Your task to perform on an android device: make emails show in primary in the gmail app Image 0: 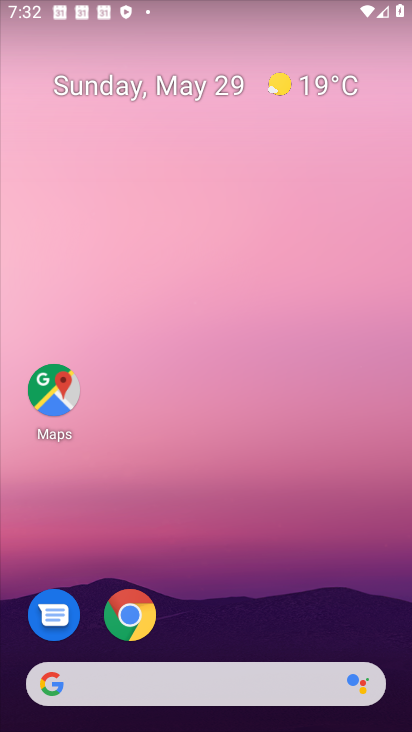
Step 0: drag from (163, 725) to (225, 54)
Your task to perform on an android device: make emails show in primary in the gmail app Image 1: 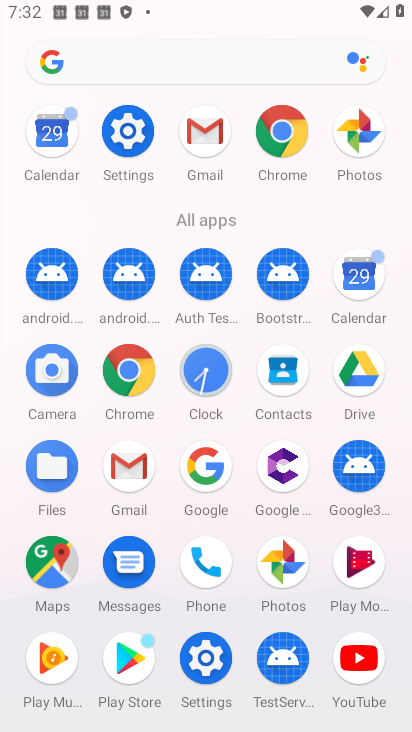
Step 1: click (209, 145)
Your task to perform on an android device: make emails show in primary in the gmail app Image 2: 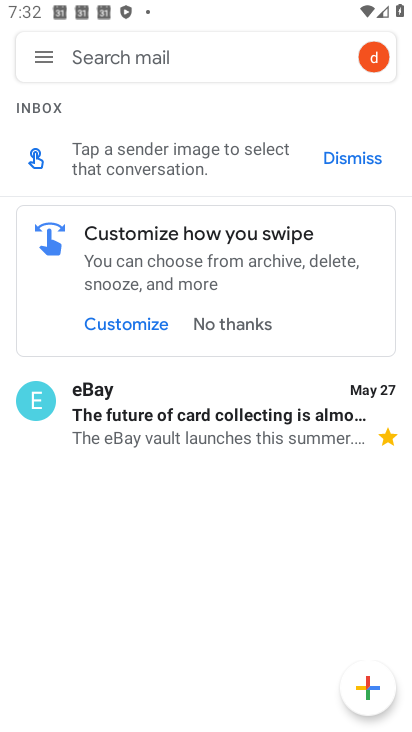
Step 2: click (51, 45)
Your task to perform on an android device: make emails show in primary in the gmail app Image 3: 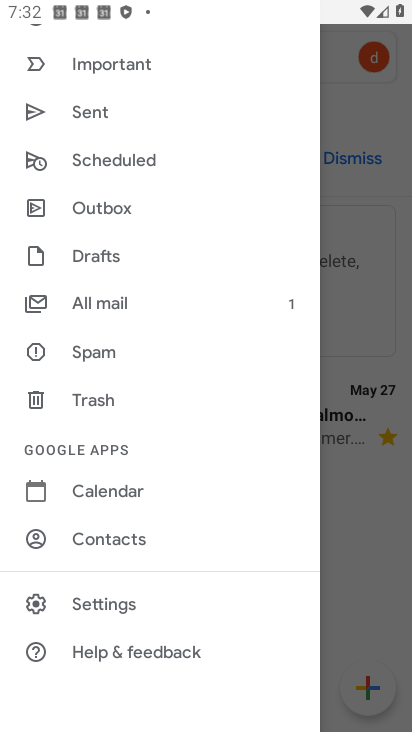
Step 3: click (113, 613)
Your task to perform on an android device: make emails show in primary in the gmail app Image 4: 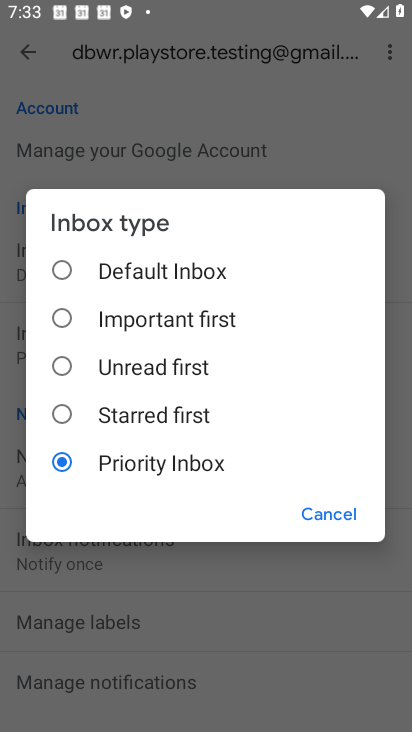
Step 4: click (332, 522)
Your task to perform on an android device: make emails show in primary in the gmail app Image 5: 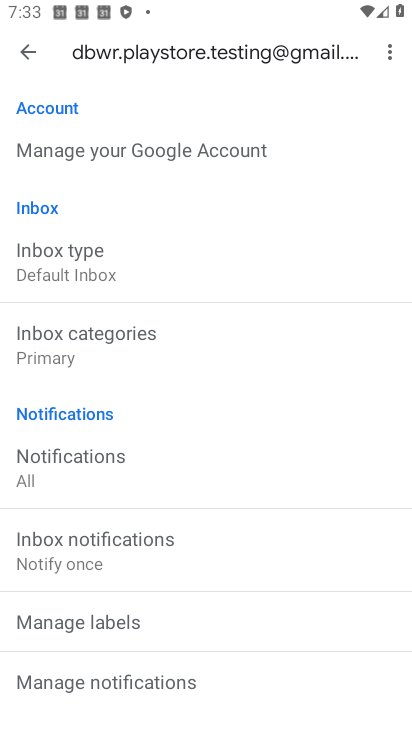
Step 5: click (120, 357)
Your task to perform on an android device: make emails show in primary in the gmail app Image 6: 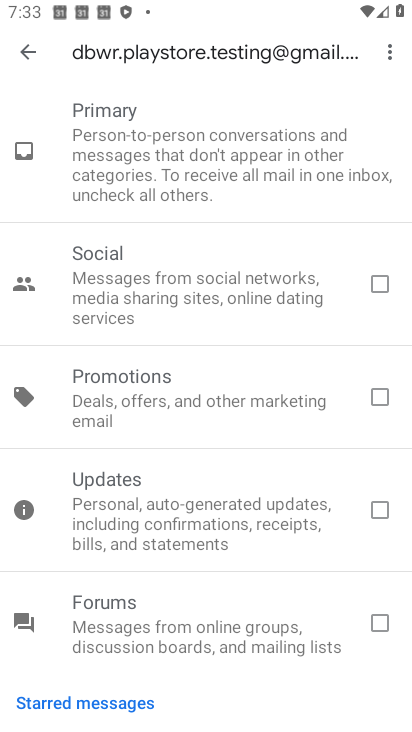
Step 6: drag from (320, 697) to (334, 152)
Your task to perform on an android device: make emails show in primary in the gmail app Image 7: 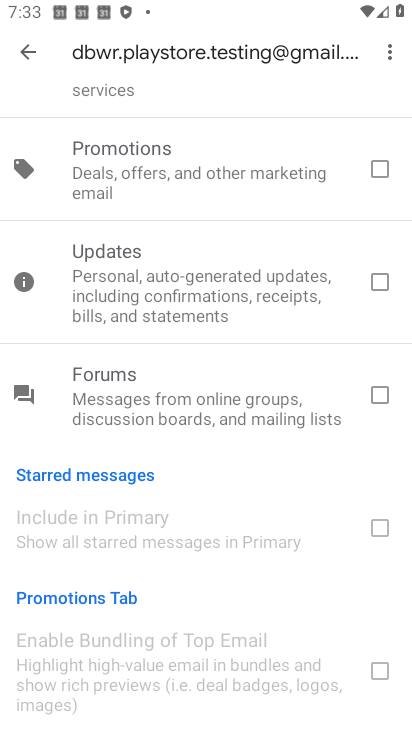
Step 7: drag from (264, 682) to (266, 242)
Your task to perform on an android device: make emails show in primary in the gmail app Image 8: 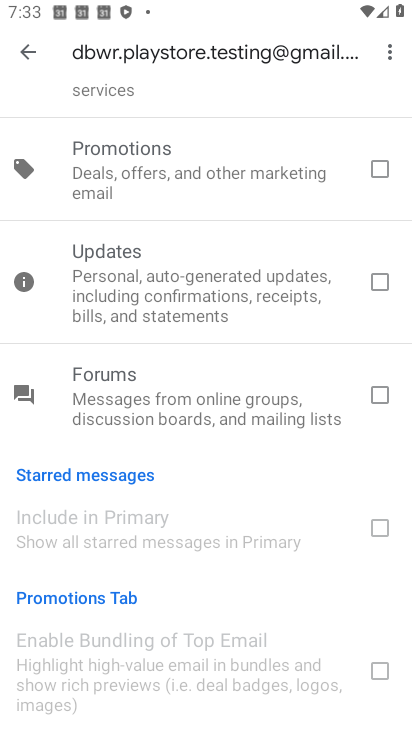
Step 8: click (33, 52)
Your task to perform on an android device: make emails show in primary in the gmail app Image 9: 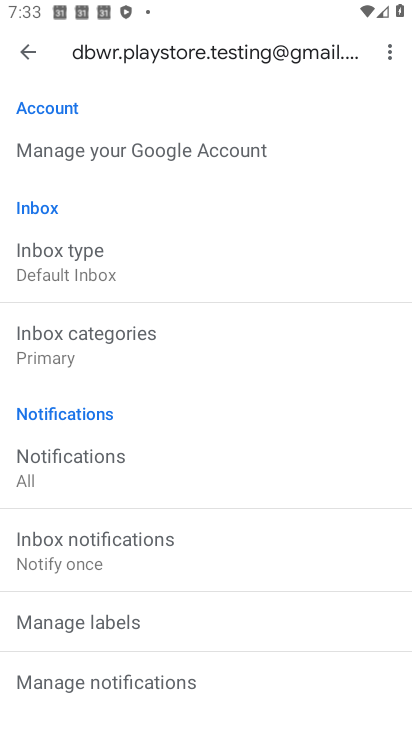
Step 9: task complete